Your task to perform on an android device: Is it going to rain today? Image 0: 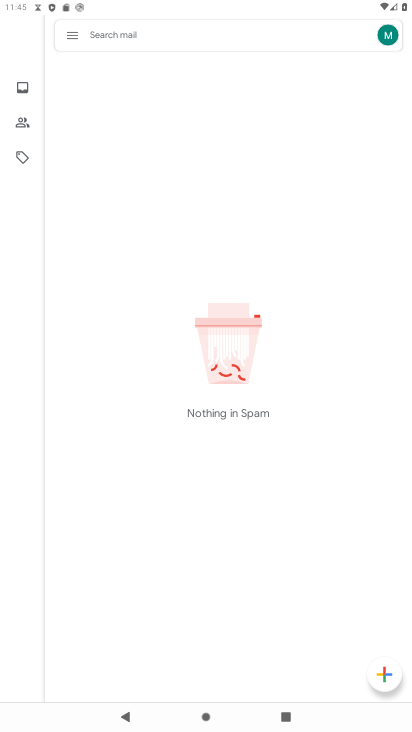
Step 0: press home button
Your task to perform on an android device: Is it going to rain today? Image 1: 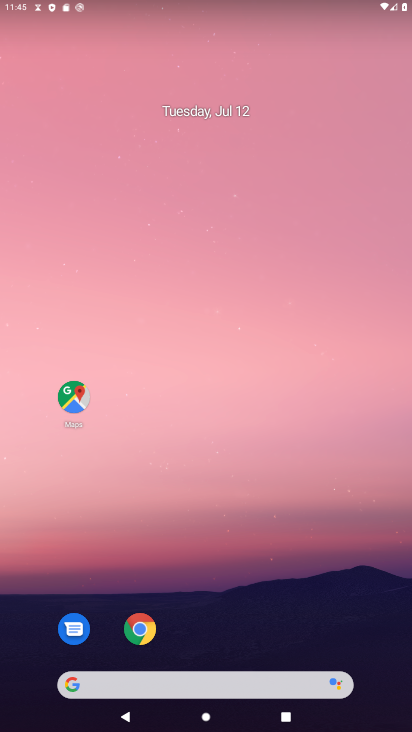
Step 1: drag from (364, 652) to (364, 52)
Your task to perform on an android device: Is it going to rain today? Image 2: 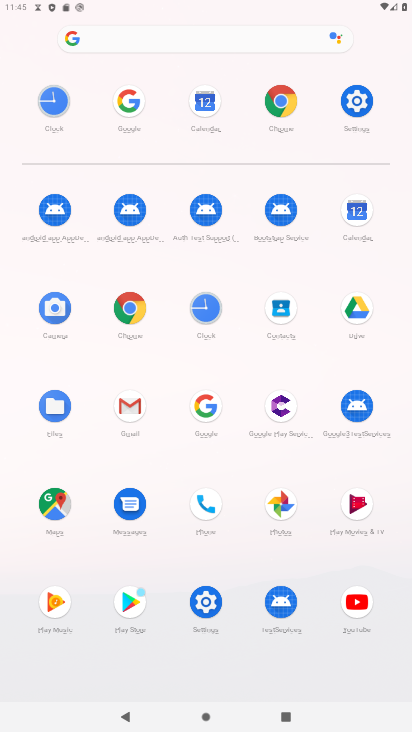
Step 2: click (132, 91)
Your task to perform on an android device: Is it going to rain today? Image 3: 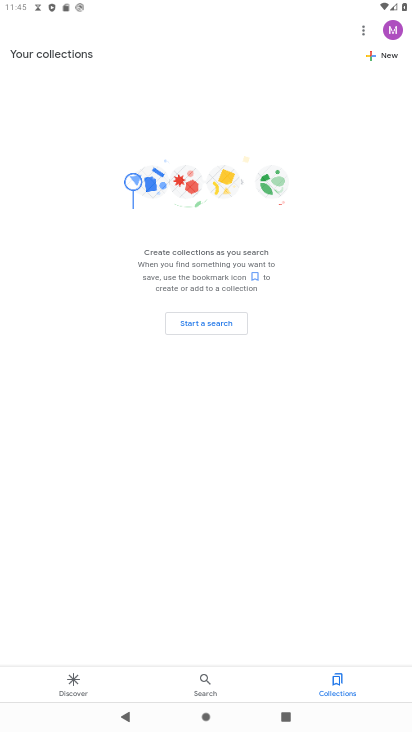
Step 3: click (217, 324)
Your task to perform on an android device: Is it going to rain today? Image 4: 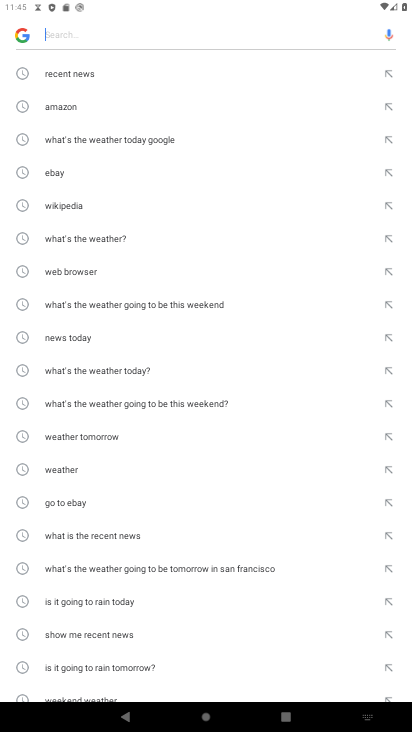
Step 4: click (68, 470)
Your task to perform on an android device: Is it going to rain today? Image 5: 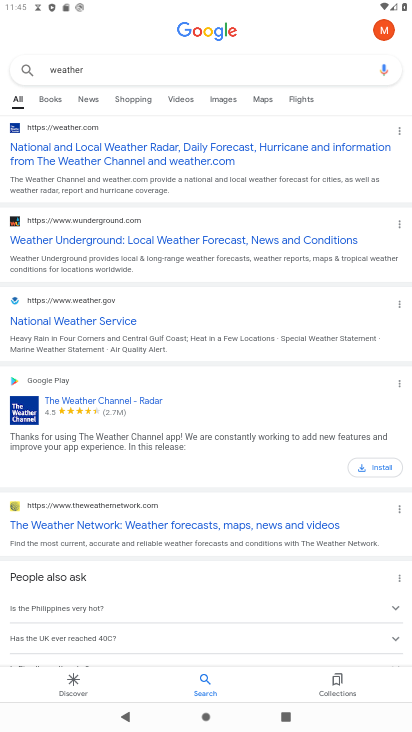
Step 5: click (25, 161)
Your task to perform on an android device: Is it going to rain today? Image 6: 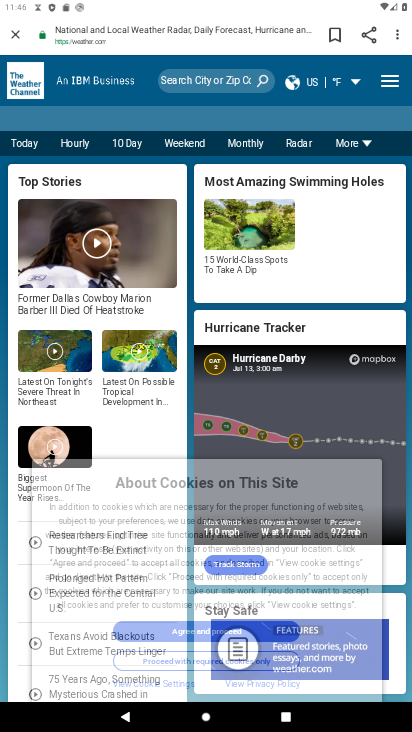
Step 6: task complete